Your task to perform on an android device: When is my next appointment? Image 0: 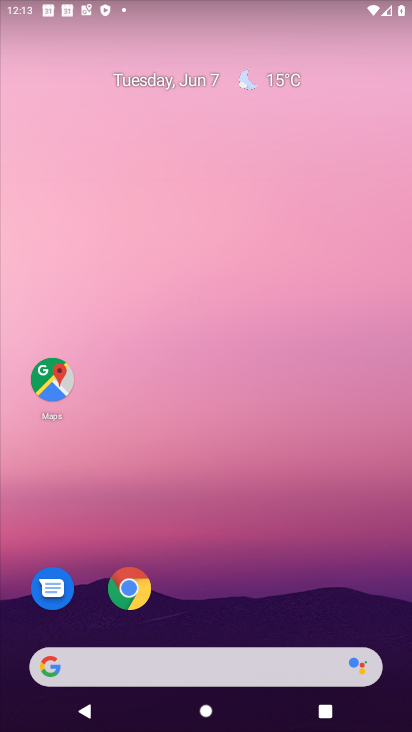
Step 0: drag from (231, 580) to (230, 186)
Your task to perform on an android device: When is my next appointment? Image 1: 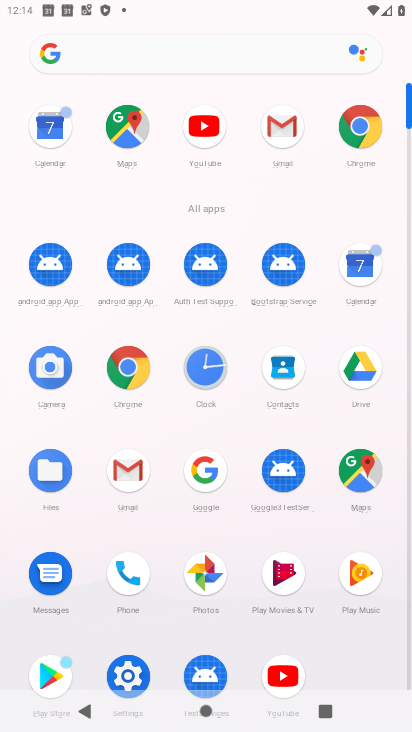
Step 1: click (355, 265)
Your task to perform on an android device: When is my next appointment? Image 2: 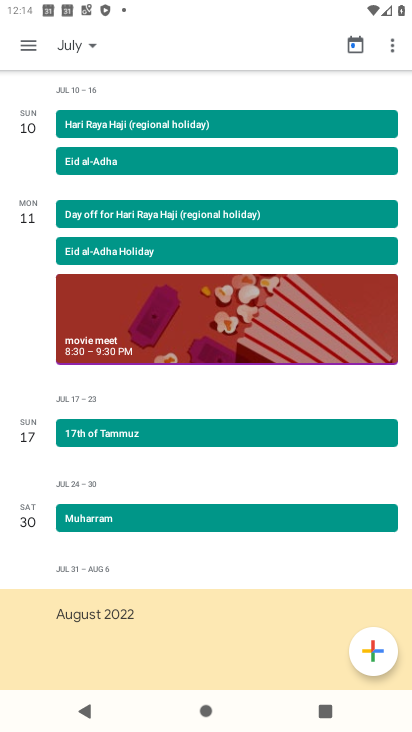
Step 2: click (20, 45)
Your task to perform on an android device: When is my next appointment? Image 3: 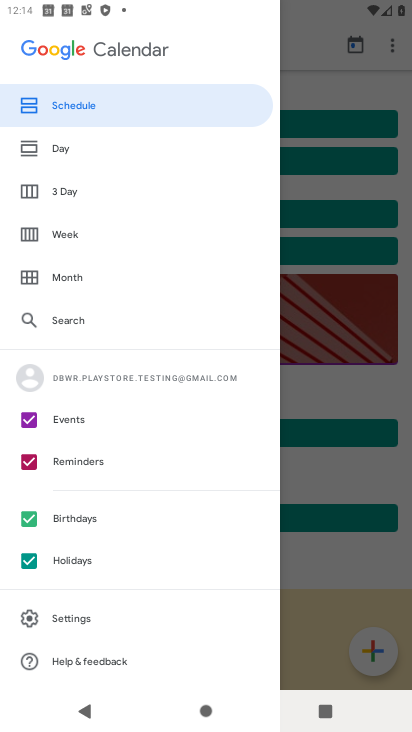
Step 3: click (64, 274)
Your task to perform on an android device: When is my next appointment? Image 4: 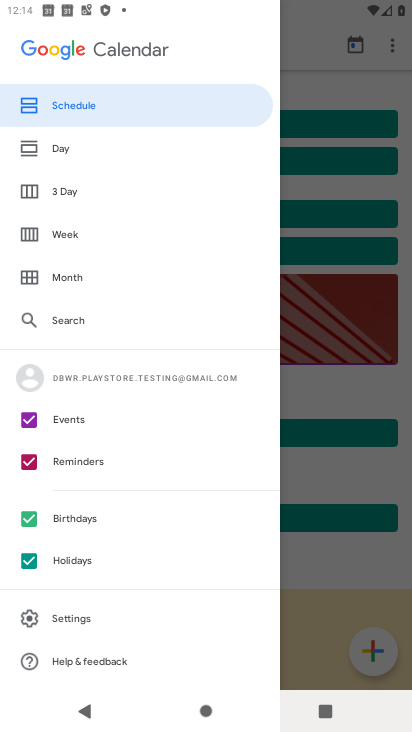
Step 4: click (65, 274)
Your task to perform on an android device: When is my next appointment? Image 5: 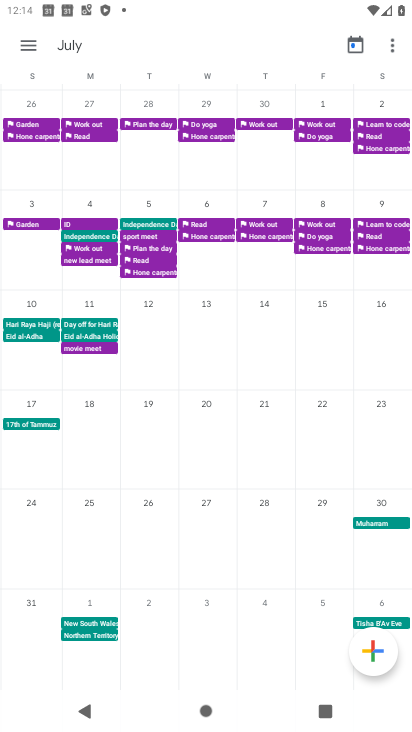
Step 5: drag from (32, 203) to (396, 269)
Your task to perform on an android device: When is my next appointment? Image 6: 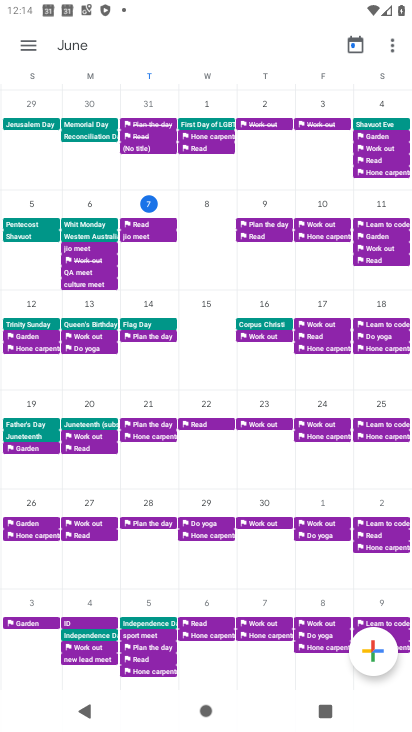
Step 6: click (208, 210)
Your task to perform on an android device: When is my next appointment? Image 7: 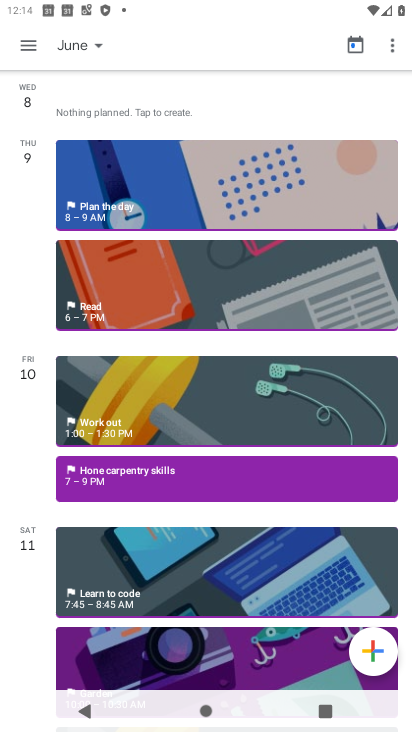
Step 7: task complete